Your task to perform on an android device: Search for vegetarian restaurants on Maps Image 0: 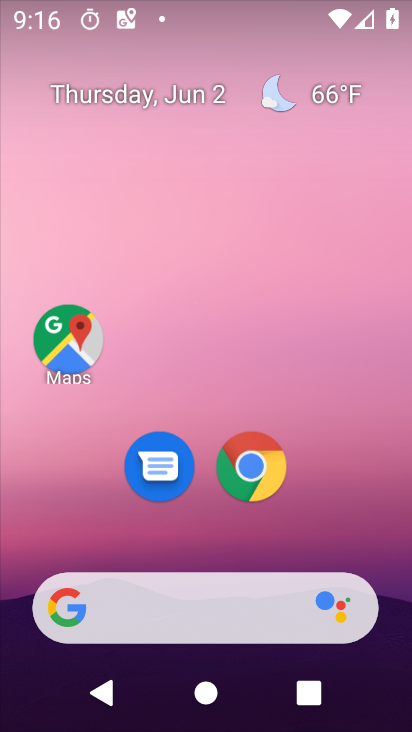
Step 0: click (63, 320)
Your task to perform on an android device: Search for vegetarian restaurants on Maps Image 1: 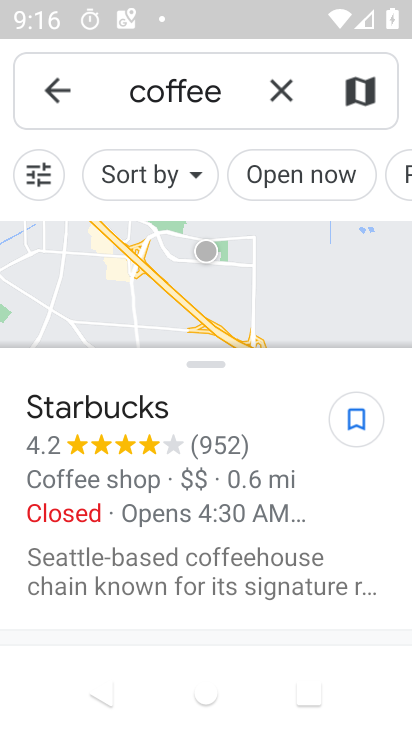
Step 1: click (286, 98)
Your task to perform on an android device: Search for vegetarian restaurants on Maps Image 2: 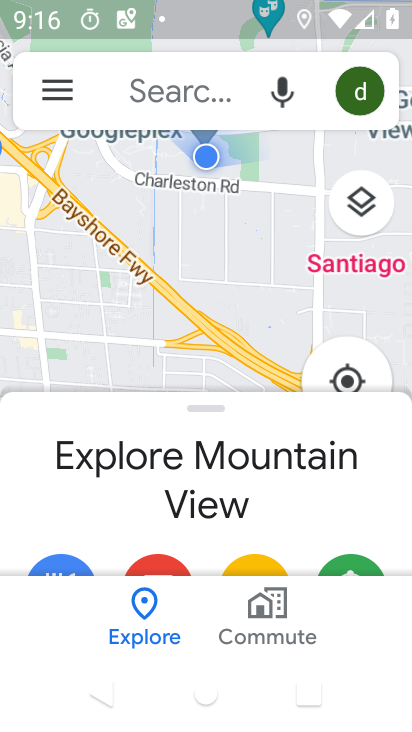
Step 2: click (108, 80)
Your task to perform on an android device: Search for vegetarian restaurants on Maps Image 3: 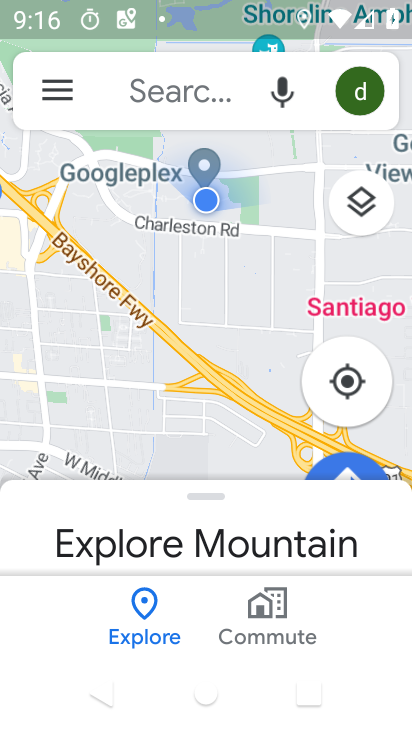
Step 3: click (206, 94)
Your task to perform on an android device: Search for vegetarian restaurants on Maps Image 4: 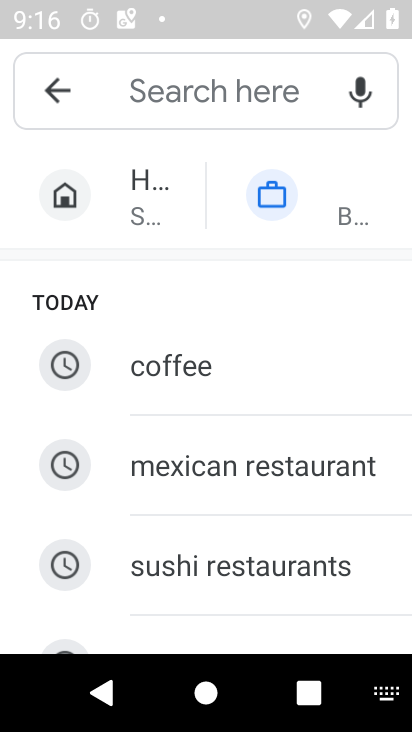
Step 4: drag from (32, 552) to (301, 165)
Your task to perform on an android device: Search for vegetarian restaurants on Maps Image 5: 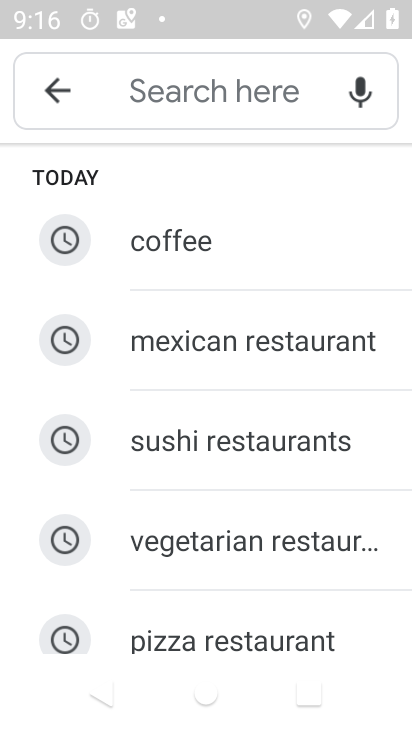
Step 5: click (156, 530)
Your task to perform on an android device: Search for vegetarian restaurants on Maps Image 6: 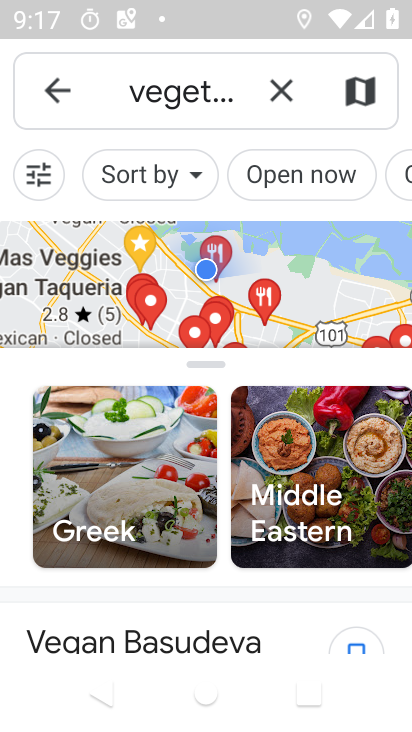
Step 6: task complete